Your task to perform on an android device: check storage Image 0: 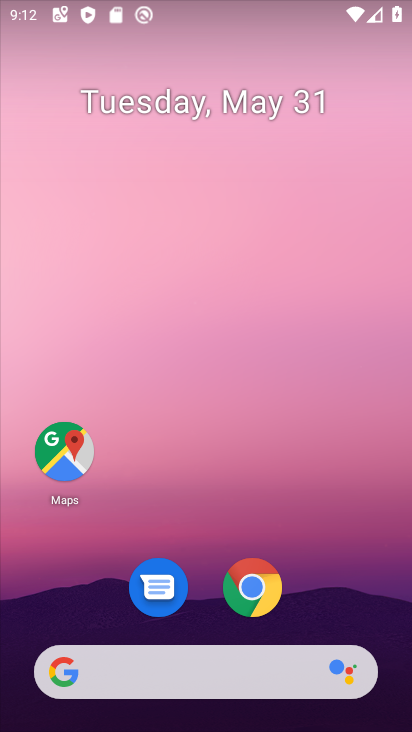
Step 0: drag from (314, 601) to (326, 115)
Your task to perform on an android device: check storage Image 1: 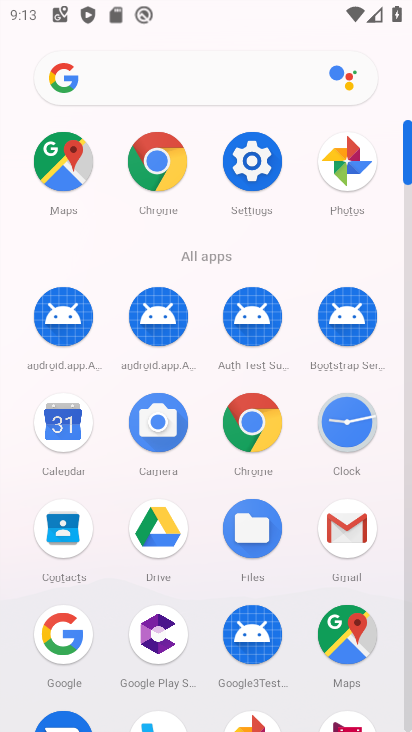
Step 1: click (243, 156)
Your task to perform on an android device: check storage Image 2: 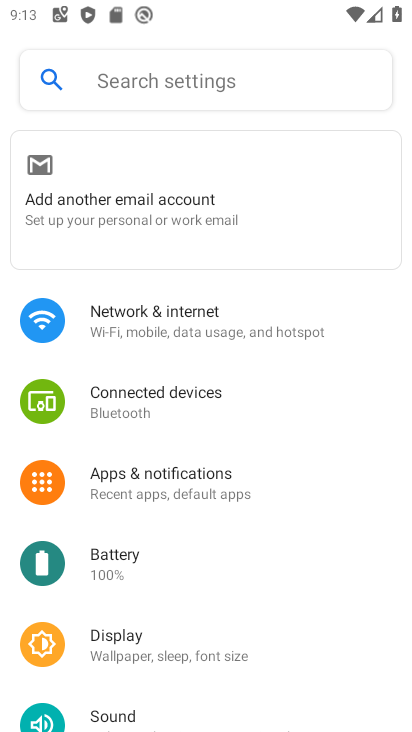
Step 2: drag from (183, 575) to (204, 204)
Your task to perform on an android device: check storage Image 3: 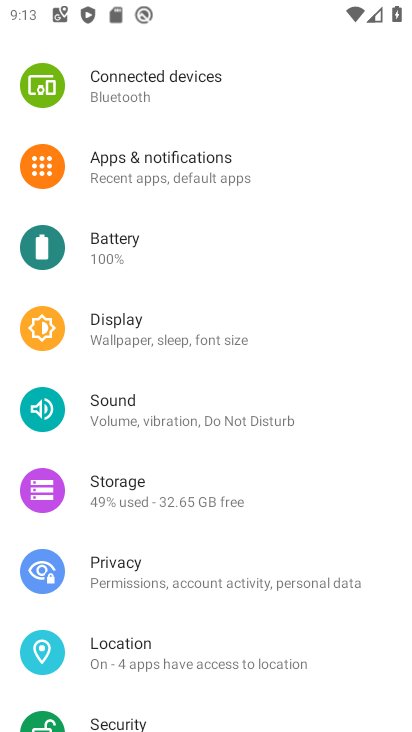
Step 3: drag from (180, 610) to (211, 255)
Your task to perform on an android device: check storage Image 4: 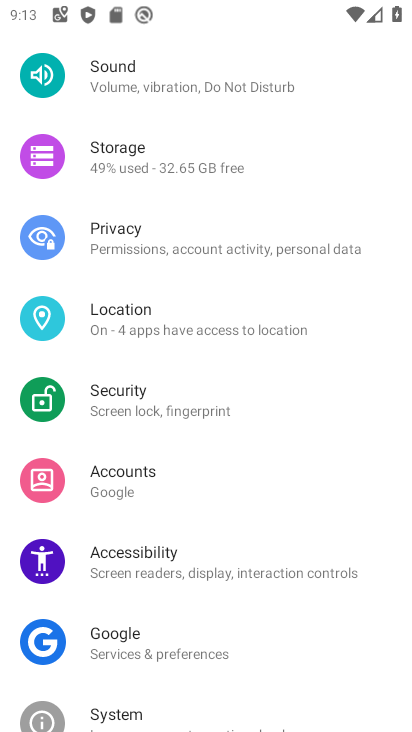
Step 4: click (113, 156)
Your task to perform on an android device: check storage Image 5: 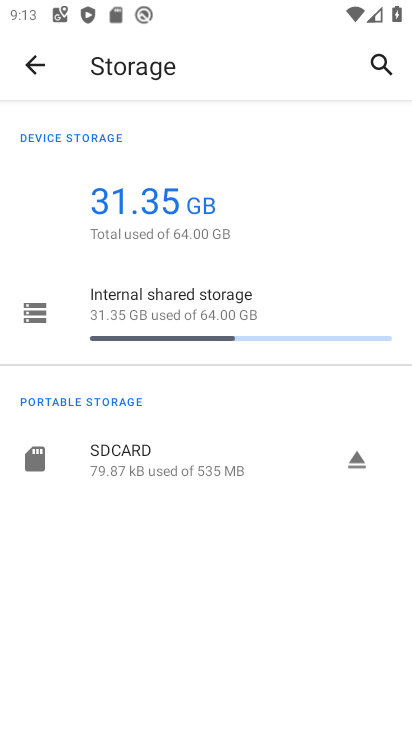
Step 5: task complete